Your task to perform on an android device: Open calendar and show me the fourth week of next month Image 0: 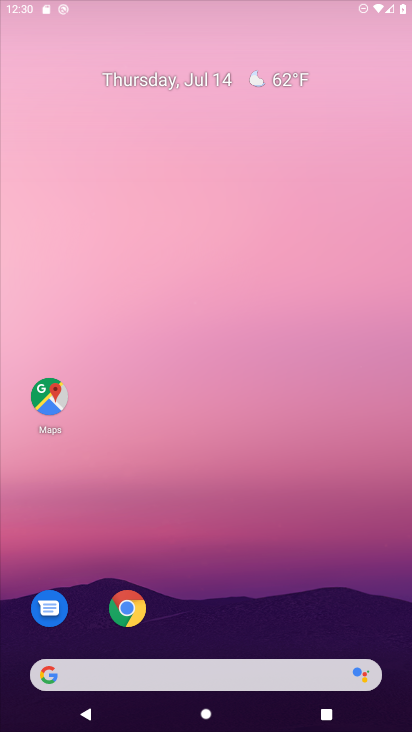
Step 0: drag from (230, 726) to (223, 218)
Your task to perform on an android device: Open calendar and show me the fourth week of next month Image 1: 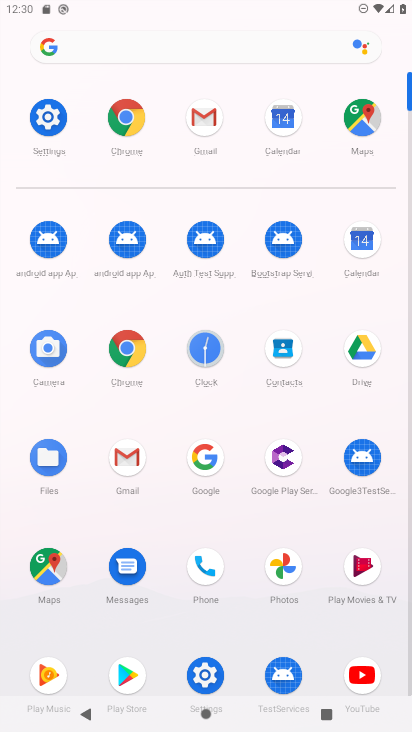
Step 1: click (361, 257)
Your task to perform on an android device: Open calendar and show me the fourth week of next month Image 2: 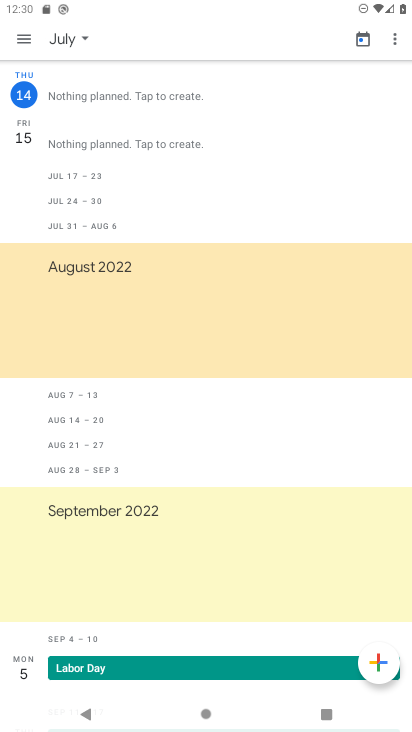
Step 2: click (84, 31)
Your task to perform on an android device: Open calendar and show me the fourth week of next month Image 3: 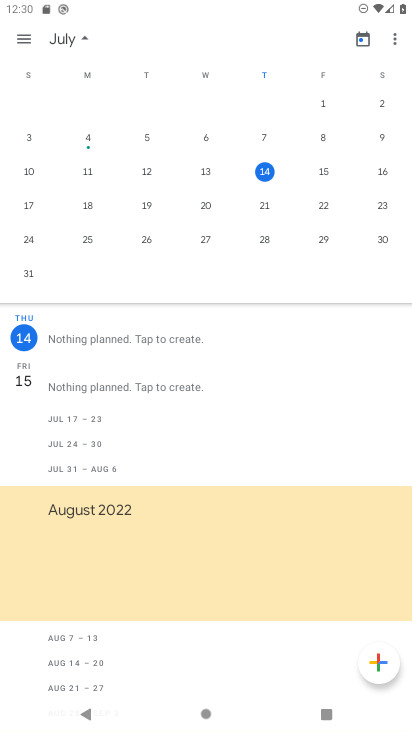
Step 3: drag from (347, 203) to (89, 204)
Your task to perform on an android device: Open calendar and show me the fourth week of next month Image 4: 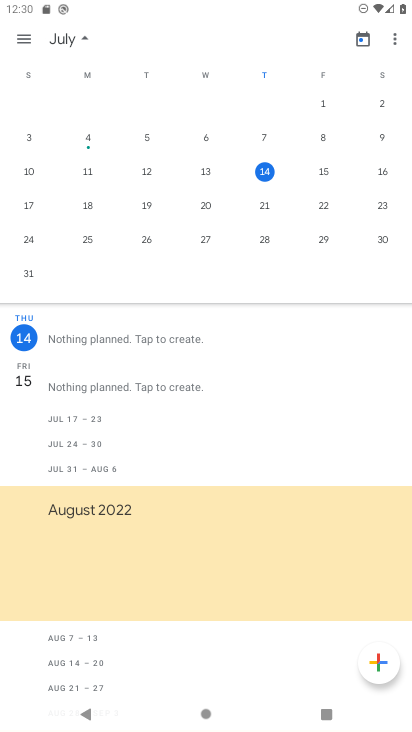
Step 4: drag from (366, 153) to (31, 163)
Your task to perform on an android device: Open calendar and show me the fourth week of next month Image 5: 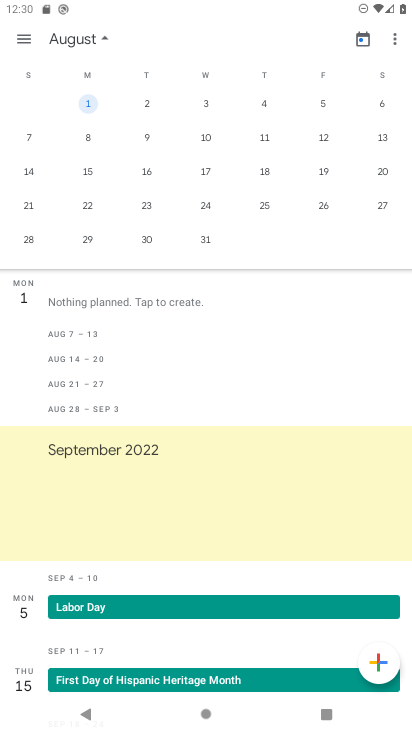
Step 5: click (87, 202)
Your task to perform on an android device: Open calendar and show me the fourth week of next month Image 6: 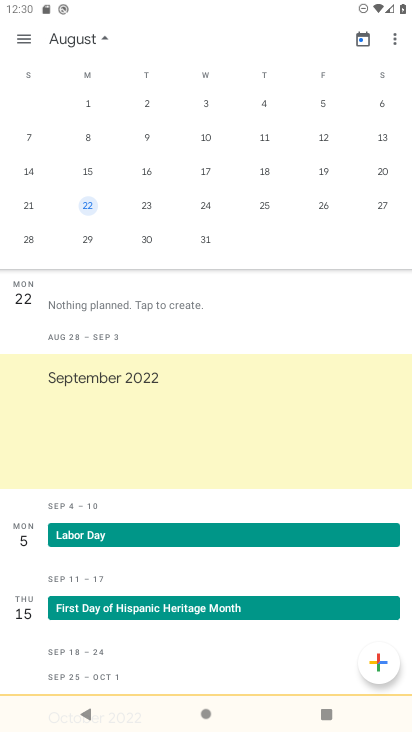
Step 6: click (22, 38)
Your task to perform on an android device: Open calendar and show me the fourth week of next month Image 7: 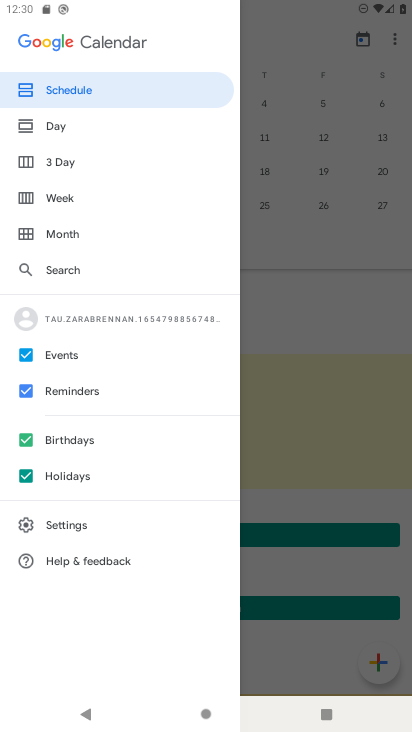
Step 7: click (58, 193)
Your task to perform on an android device: Open calendar and show me the fourth week of next month Image 8: 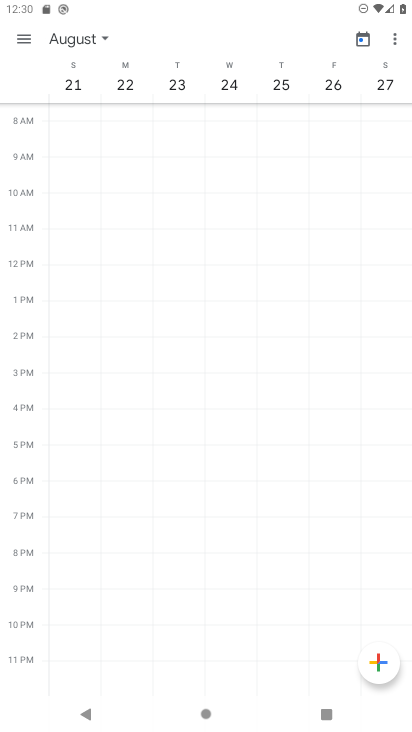
Step 8: task complete